Your task to perform on an android device: Do I have any events today? Image 0: 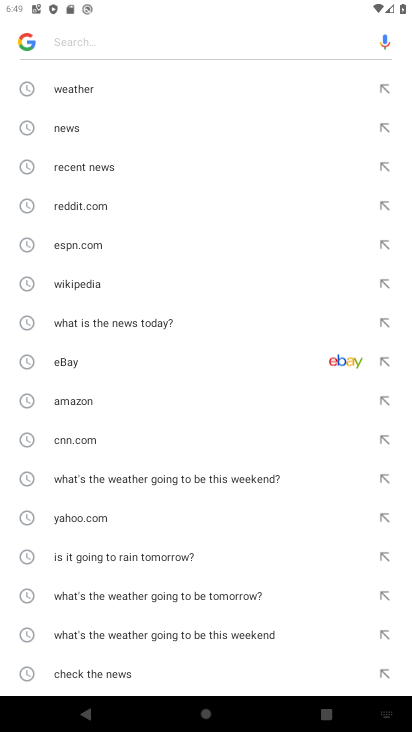
Step 0: press back button
Your task to perform on an android device: Do I have any events today? Image 1: 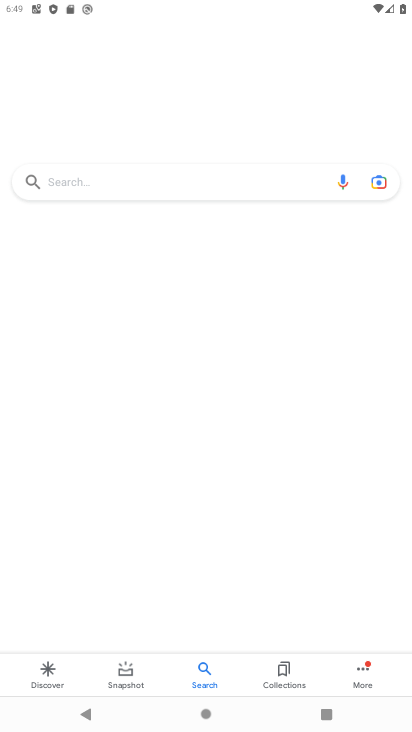
Step 1: click (203, 705)
Your task to perform on an android device: Do I have any events today? Image 2: 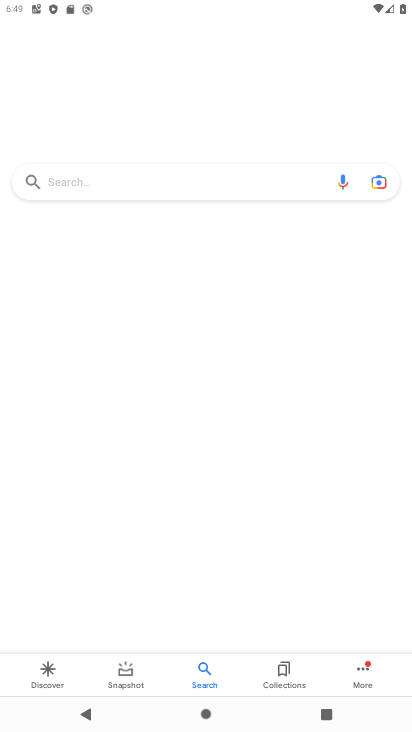
Step 2: click (203, 714)
Your task to perform on an android device: Do I have any events today? Image 3: 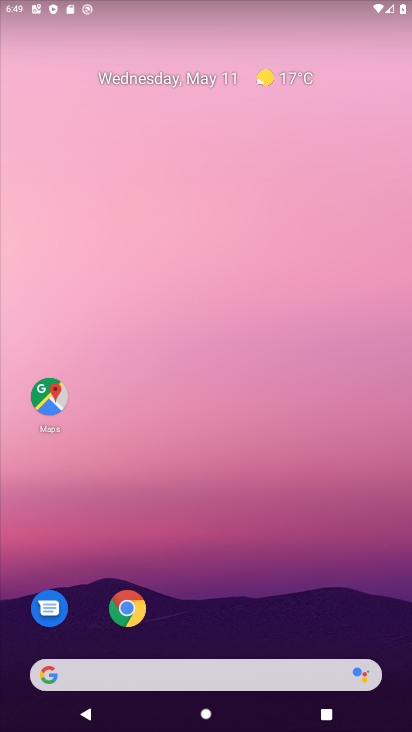
Step 3: drag from (239, 611) to (233, 149)
Your task to perform on an android device: Do I have any events today? Image 4: 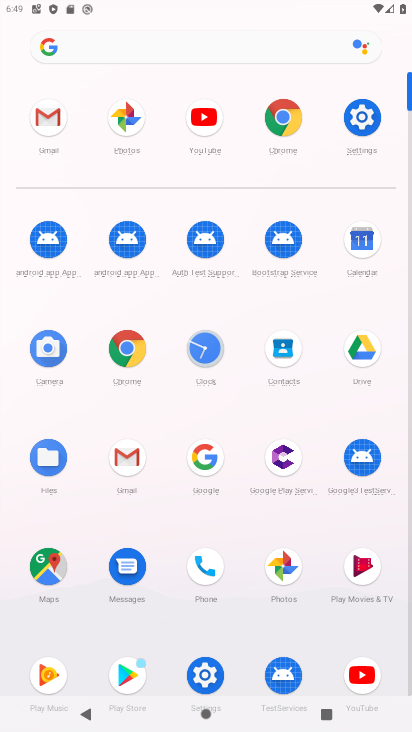
Step 4: click (356, 257)
Your task to perform on an android device: Do I have any events today? Image 5: 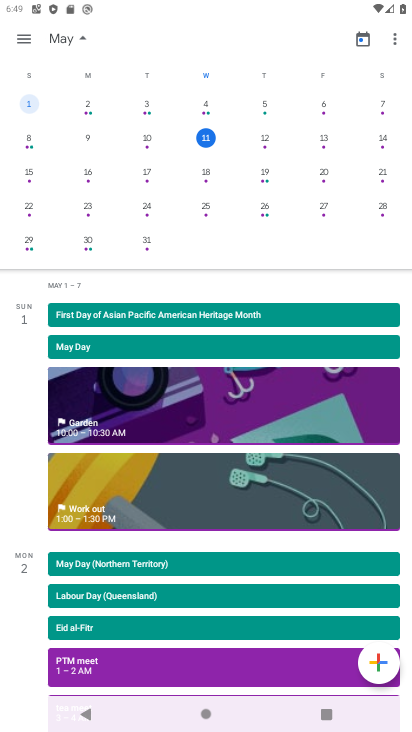
Step 5: task complete